Your task to perform on an android device: Open maps Image 0: 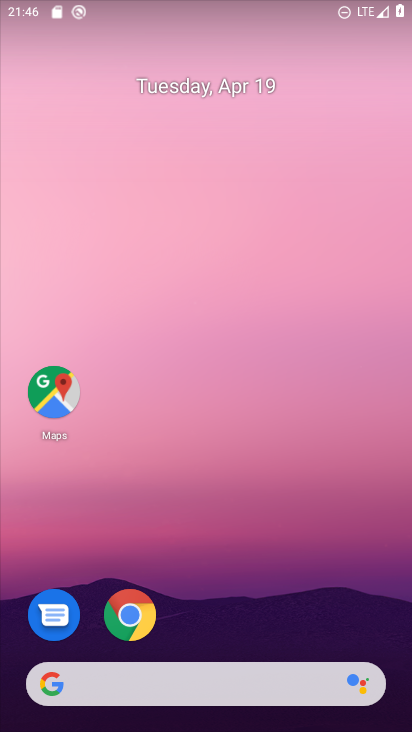
Step 0: click (49, 410)
Your task to perform on an android device: Open maps Image 1: 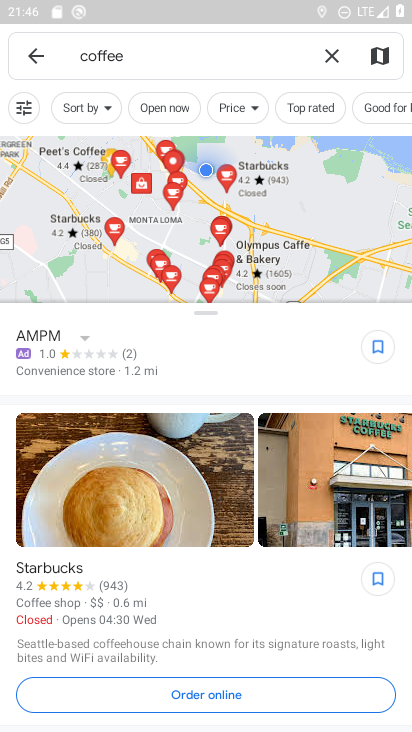
Step 1: click (36, 52)
Your task to perform on an android device: Open maps Image 2: 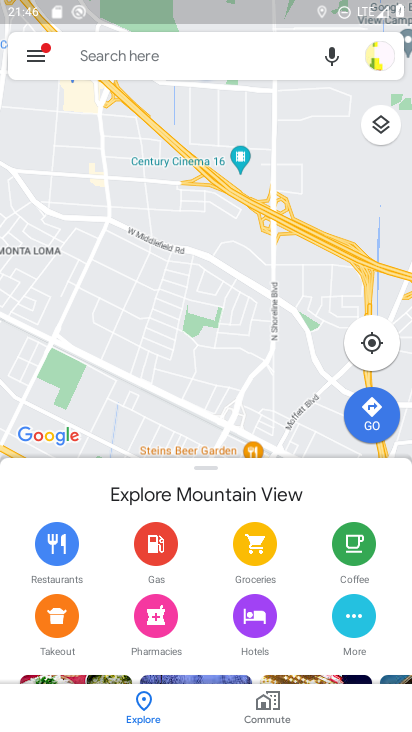
Step 2: task complete